Your task to perform on an android device: What's the weather today? Image 0: 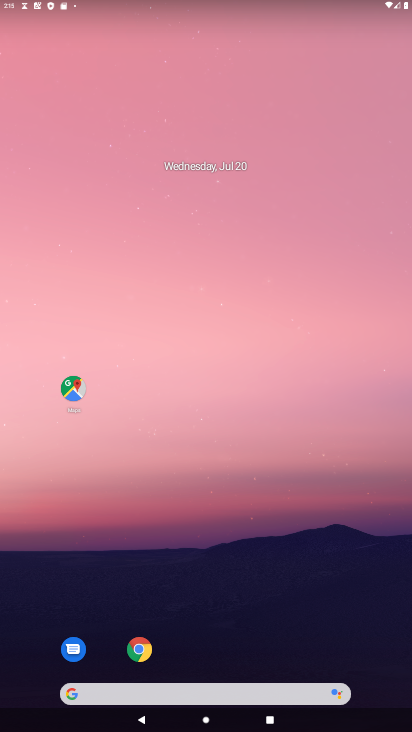
Step 0: click (185, 694)
Your task to perform on an android device: What's the weather today? Image 1: 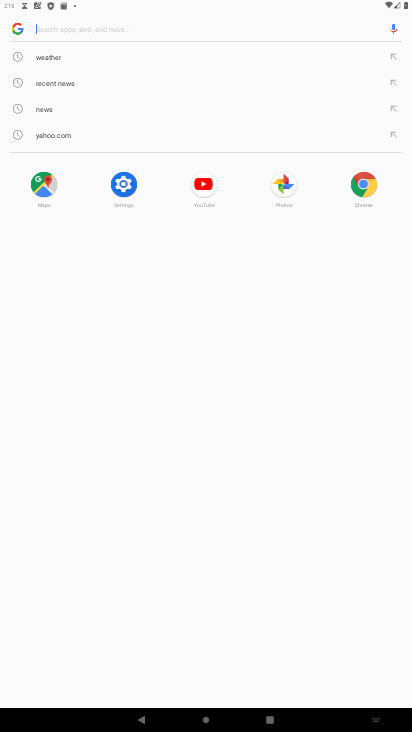
Step 1: click (59, 58)
Your task to perform on an android device: What's the weather today? Image 2: 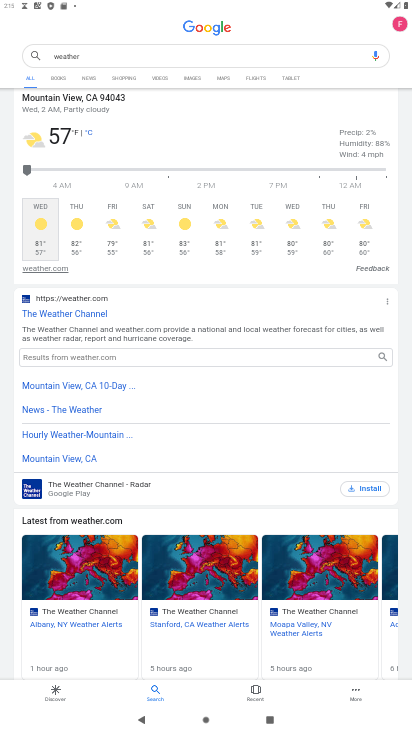
Step 2: task complete